Your task to perform on an android device: refresh tabs in the chrome app Image 0: 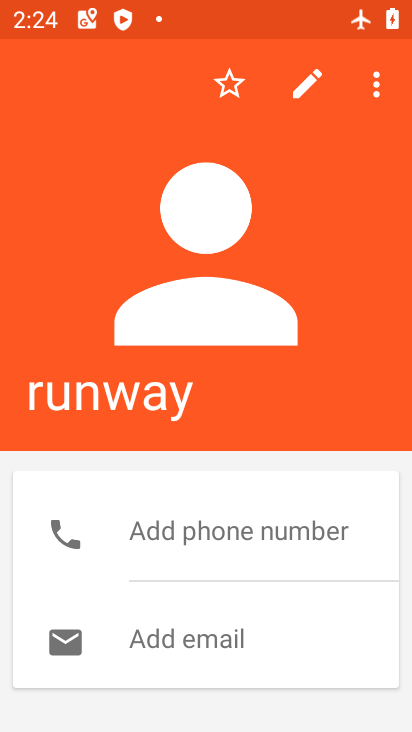
Step 0: press home button
Your task to perform on an android device: refresh tabs in the chrome app Image 1: 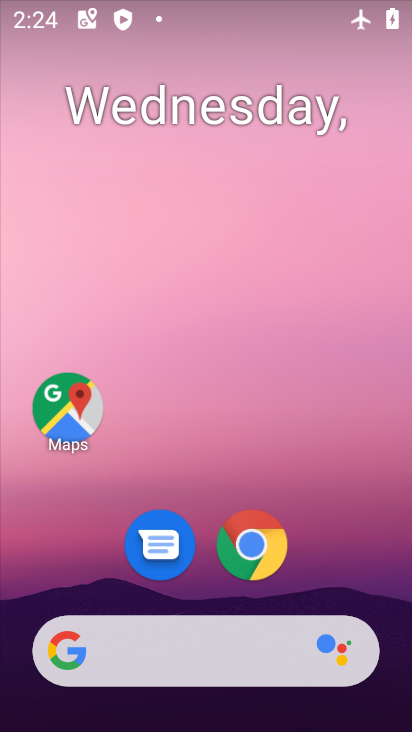
Step 1: click (251, 545)
Your task to perform on an android device: refresh tabs in the chrome app Image 2: 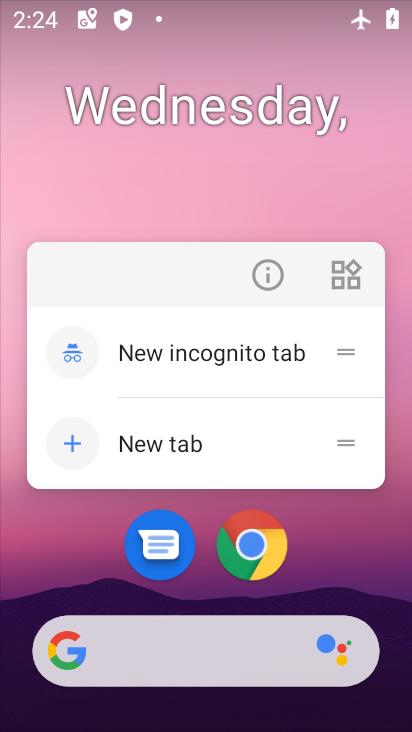
Step 2: click (251, 545)
Your task to perform on an android device: refresh tabs in the chrome app Image 3: 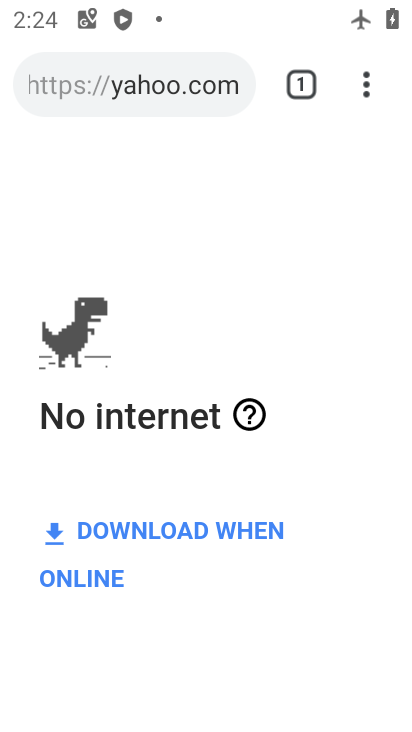
Step 3: click (361, 76)
Your task to perform on an android device: refresh tabs in the chrome app Image 4: 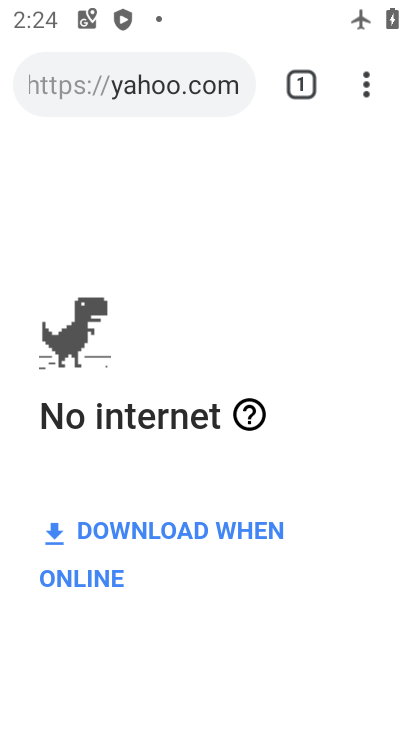
Step 4: click (369, 77)
Your task to perform on an android device: refresh tabs in the chrome app Image 5: 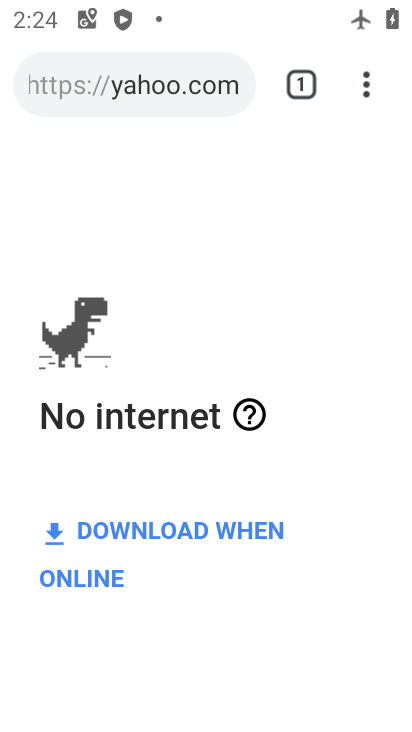
Step 5: task complete